Your task to perform on an android device: see sites visited before in the chrome app Image 0: 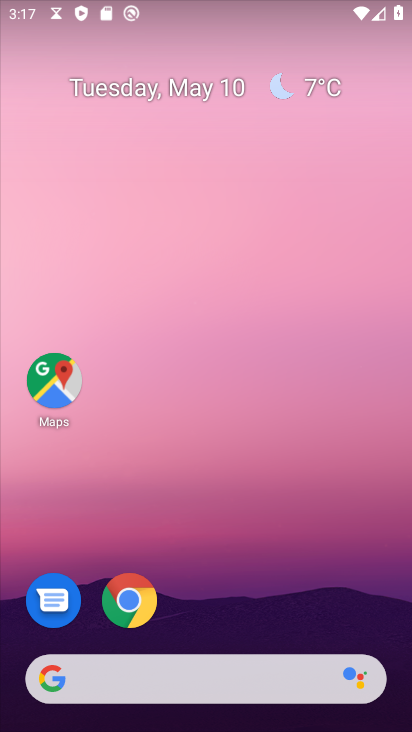
Step 0: click (148, 617)
Your task to perform on an android device: see sites visited before in the chrome app Image 1: 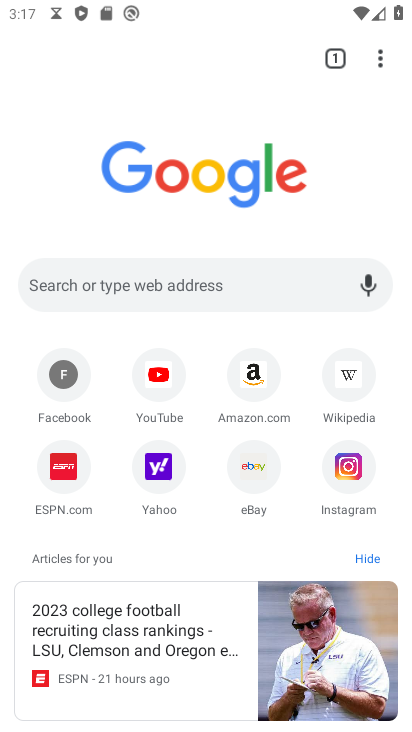
Step 1: task complete